Your task to perform on an android device: delete browsing data in the chrome app Image 0: 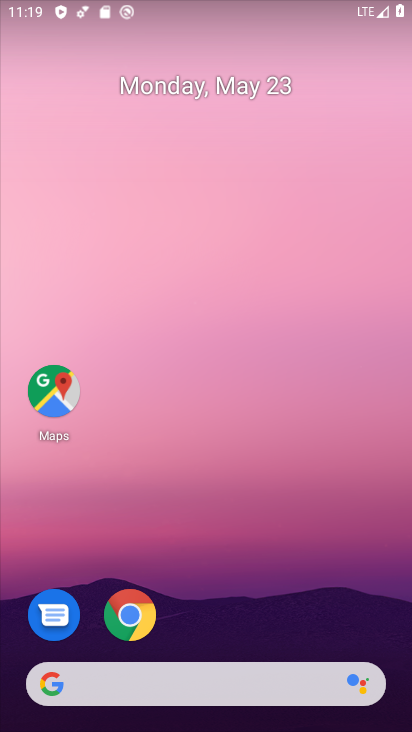
Step 0: click (129, 615)
Your task to perform on an android device: delete browsing data in the chrome app Image 1: 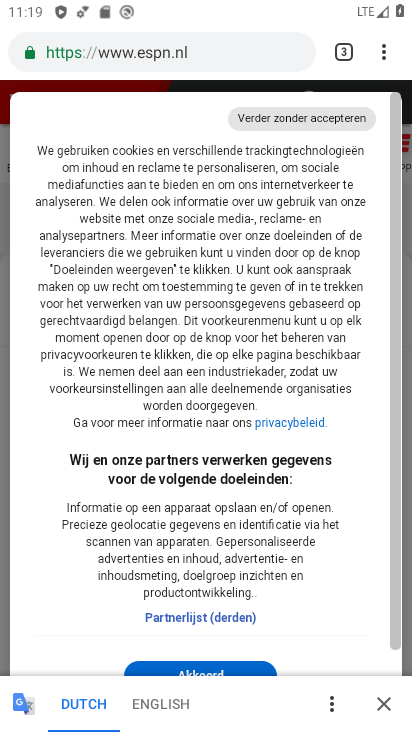
Step 1: click (387, 54)
Your task to perform on an android device: delete browsing data in the chrome app Image 2: 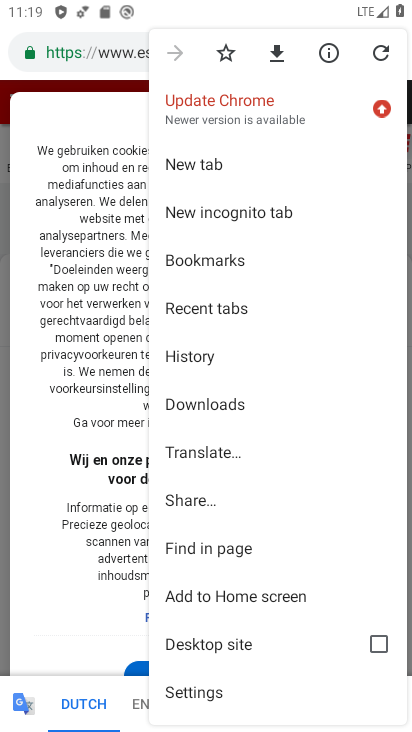
Step 2: click (214, 362)
Your task to perform on an android device: delete browsing data in the chrome app Image 3: 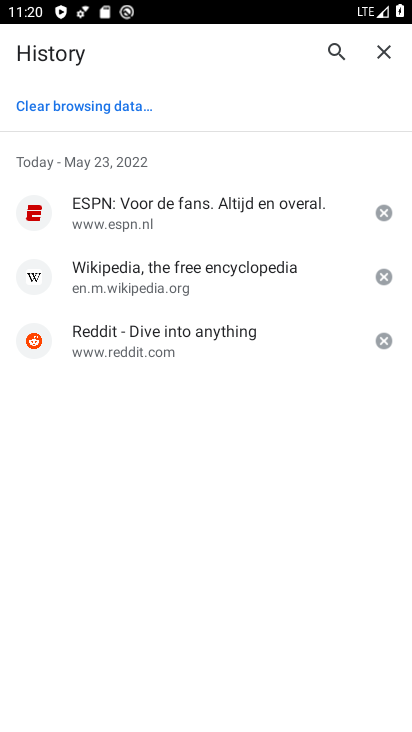
Step 3: click (124, 102)
Your task to perform on an android device: delete browsing data in the chrome app Image 4: 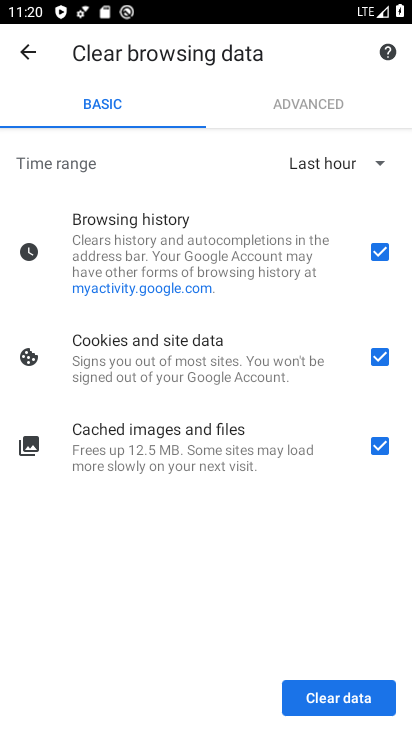
Step 4: click (380, 362)
Your task to perform on an android device: delete browsing data in the chrome app Image 5: 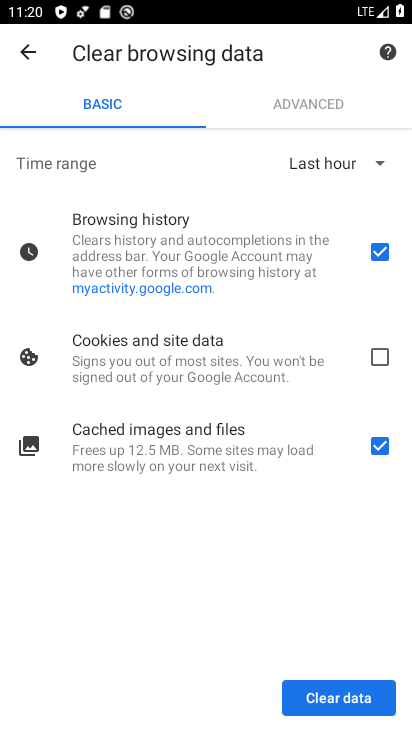
Step 5: click (385, 448)
Your task to perform on an android device: delete browsing data in the chrome app Image 6: 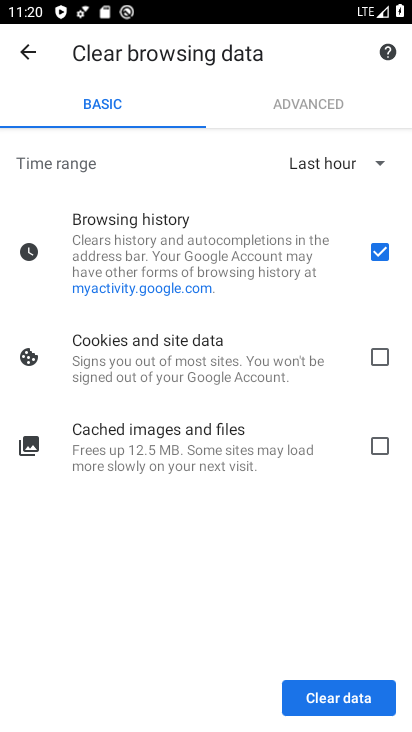
Step 6: click (343, 703)
Your task to perform on an android device: delete browsing data in the chrome app Image 7: 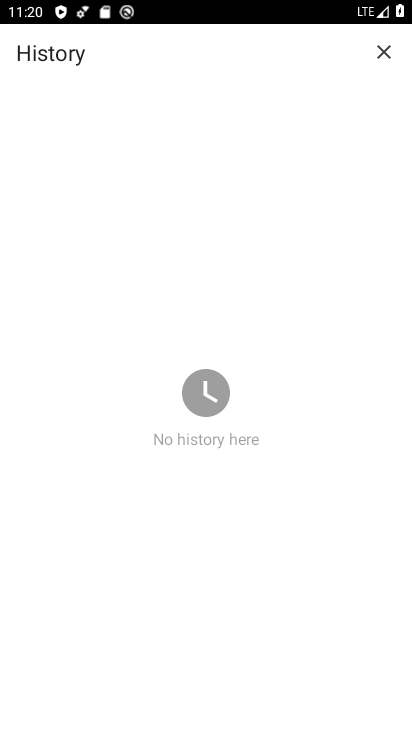
Step 7: task complete